Your task to perform on an android device: Go to wifi settings Image 0: 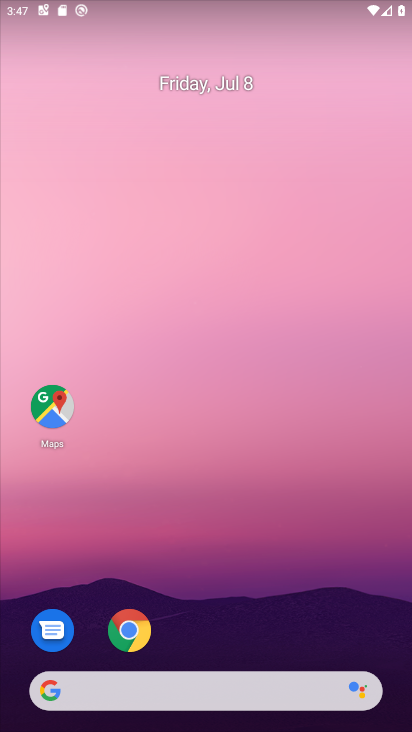
Step 0: drag from (332, 562) to (306, 182)
Your task to perform on an android device: Go to wifi settings Image 1: 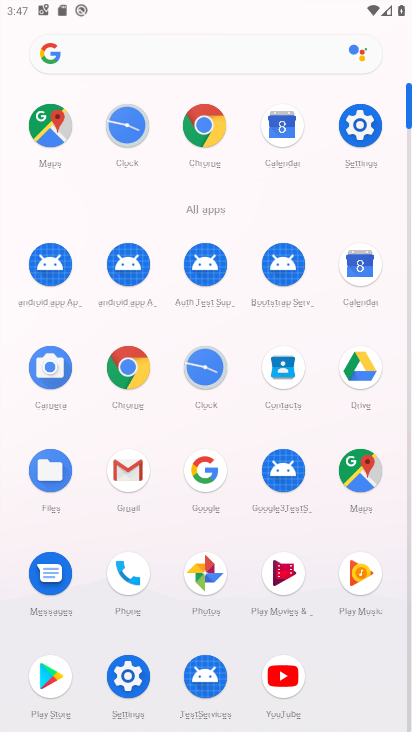
Step 1: click (362, 113)
Your task to perform on an android device: Go to wifi settings Image 2: 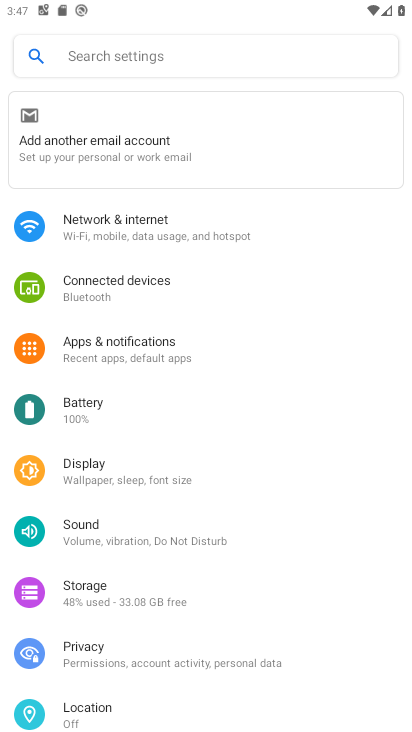
Step 2: click (177, 229)
Your task to perform on an android device: Go to wifi settings Image 3: 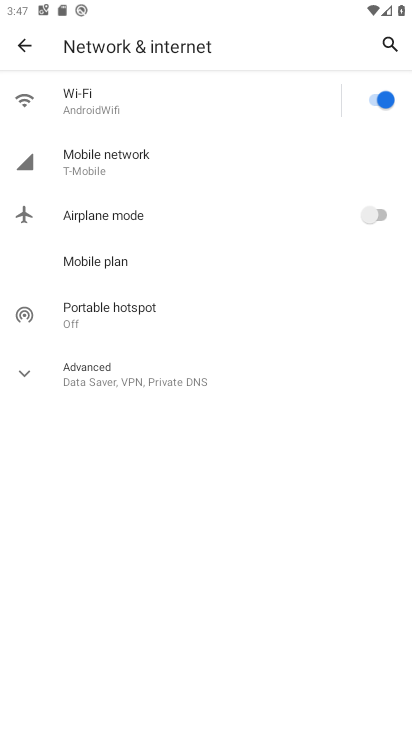
Step 3: click (180, 98)
Your task to perform on an android device: Go to wifi settings Image 4: 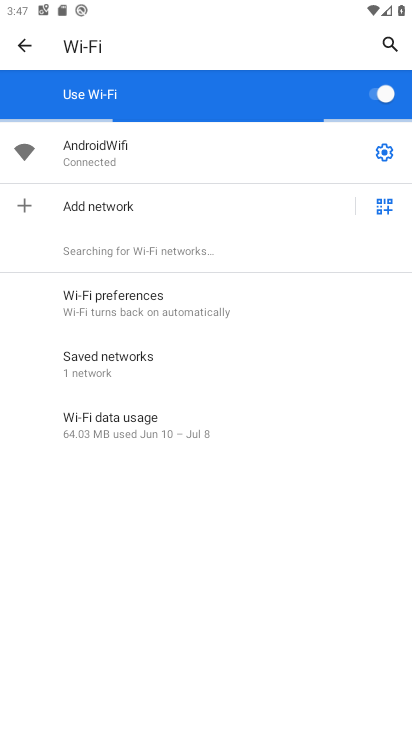
Step 4: click (385, 148)
Your task to perform on an android device: Go to wifi settings Image 5: 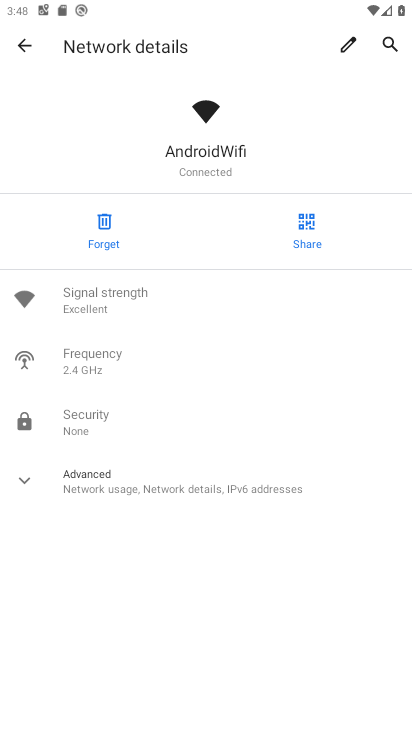
Step 5: task complete